Your task to perform on an android device: change the clock style Image 0: 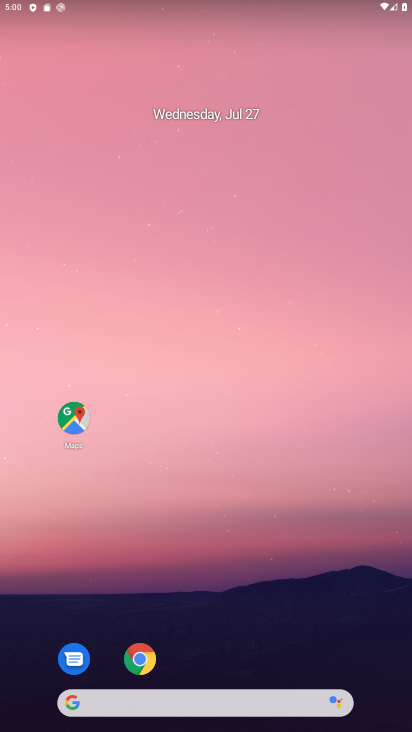
Step 0: drag from (255, 585) to (270, 110)
Your task to perform on an android device: change the clock style Image 1: 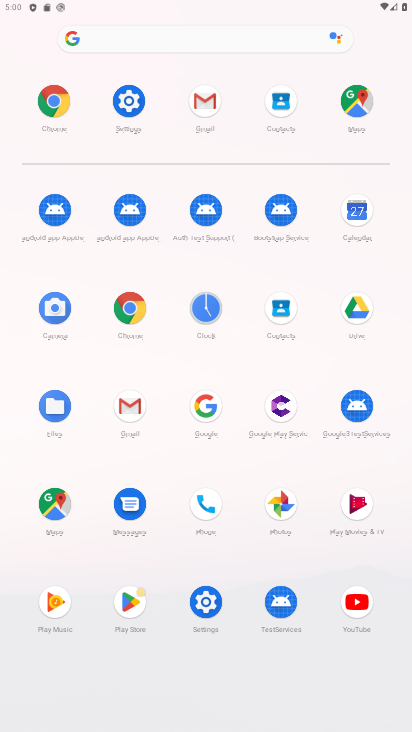
Step 1: click (211, 296)
Your task to perform on an android device: change the clock style Image 2: 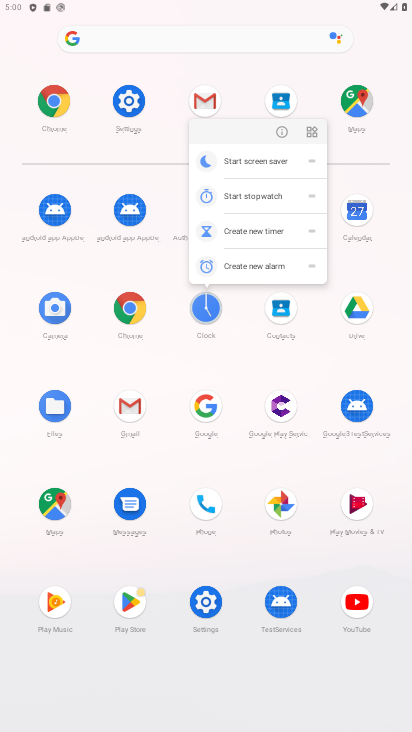
Step 2: click (201, 306)
Your task to perform on an android device: change the clock style Image 3: 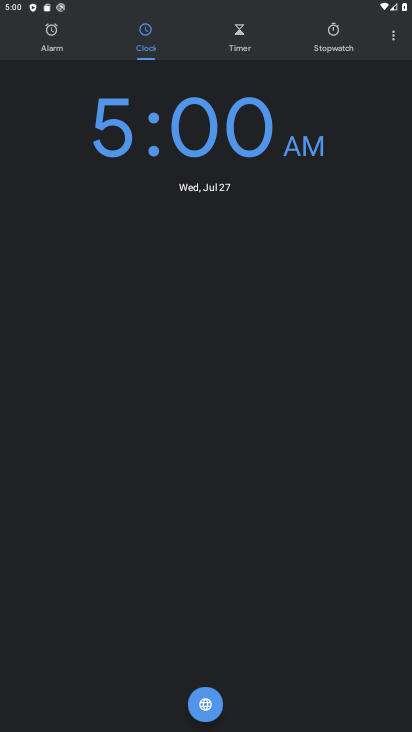
Step 3: click (390, 36)
Your task to perform on an android device: change the clock style Image 4: 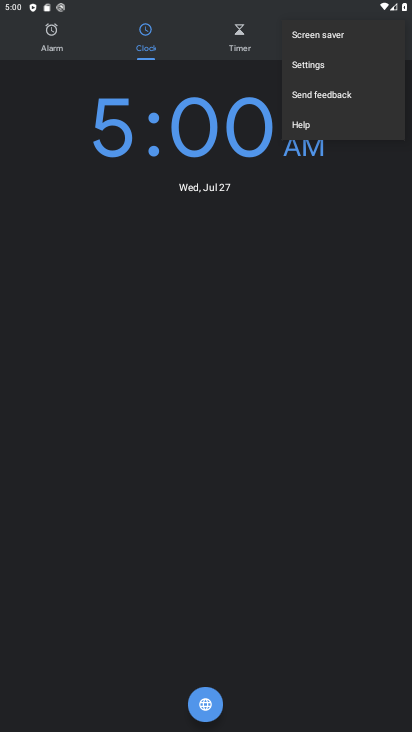
Step 4: click (312, 67)
Your task to perform on an android device: change the clock style Image 5: 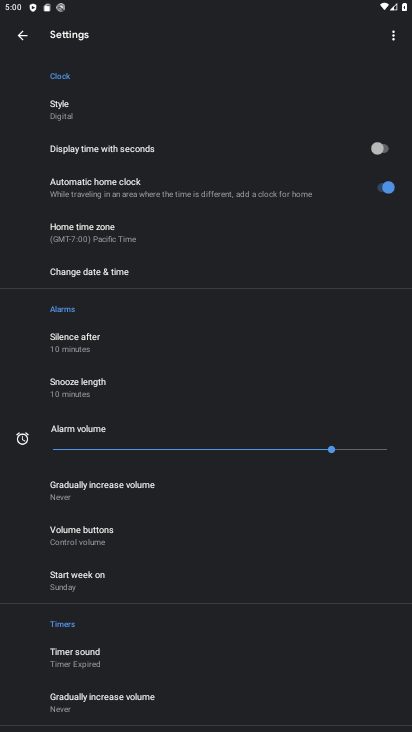
Step 5: click (78, 114)
Your task to perform on an android device: change the clock style Image 6: 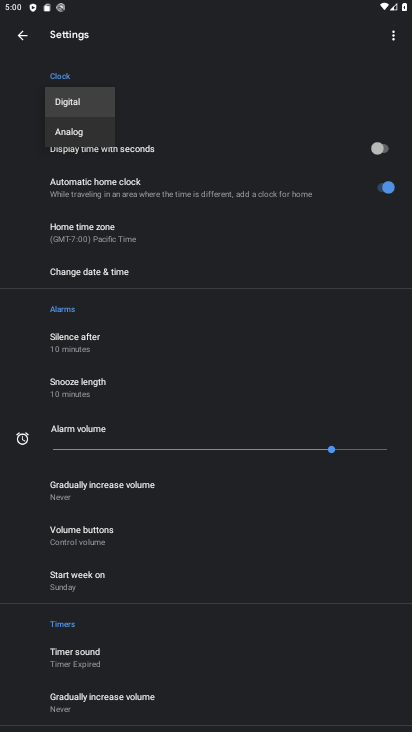
Step 6: click (85, 128)
Your task to perform on an android device: change the clock style Image 7: 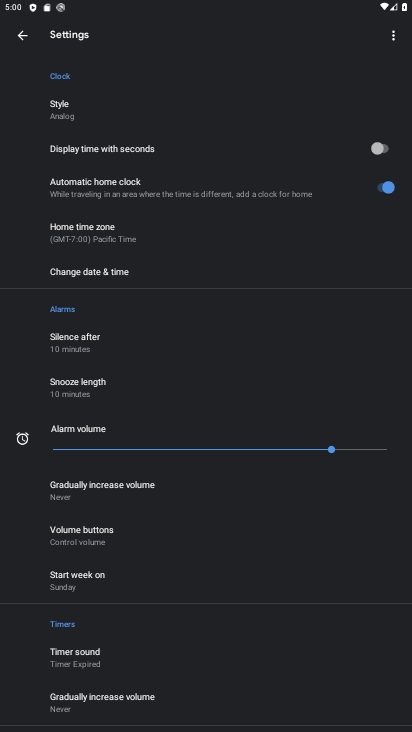
Step 7: task complete